Your task to perform on an android device: turn on airplane mode Image 0: 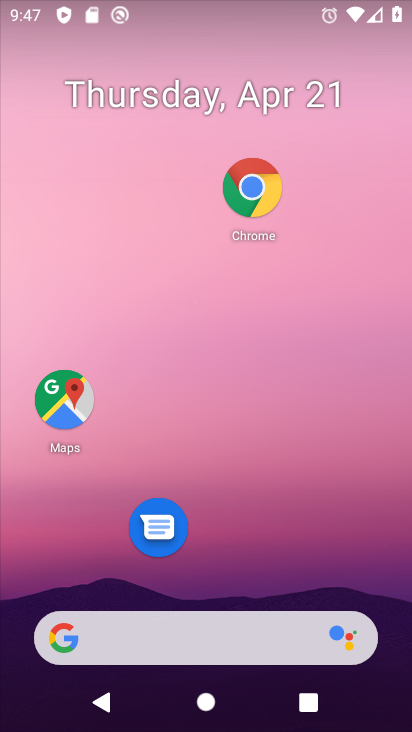
Step 0: drag from (229, 549) to (256, 225)
Your task to perform on an android device: turn on airplane mode Image 1: 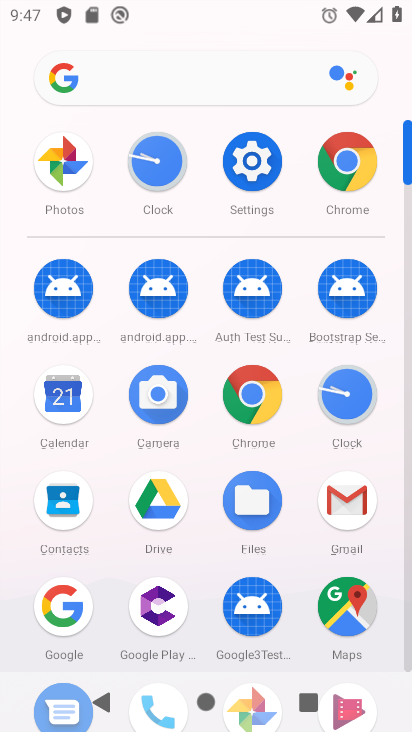
Step 1: click (249, 196)
Your task to perform on an android device: turn on airplane mode Image 2: 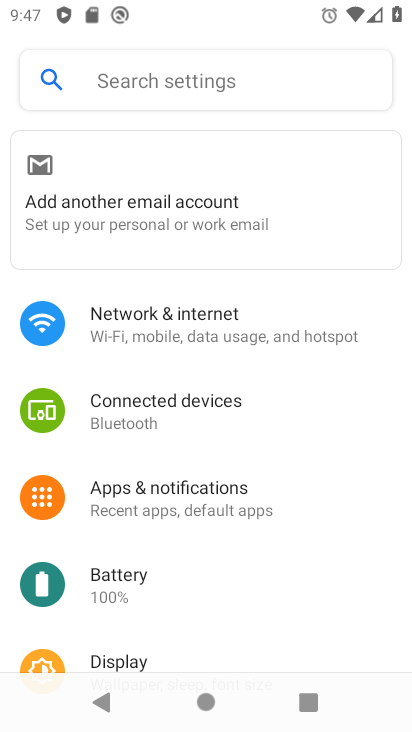
Step 2: click (160, 343)
Your task to perform on an android device: turn on airplane mode Image 3: 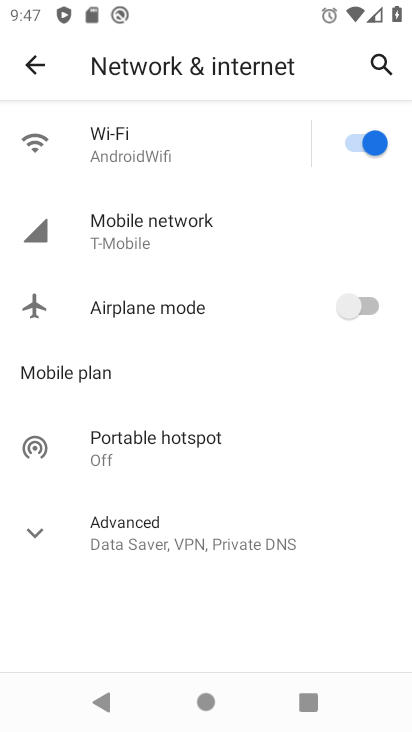
Step 3: click (377, 308)
Your task to perform on an android device: turn on airplane mode Image 4: 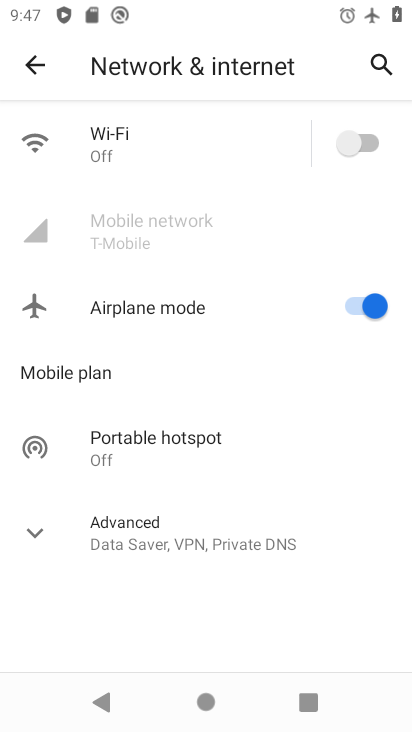
Step 4: task complete